Your task to perform on an android device: Check the news Image 0: 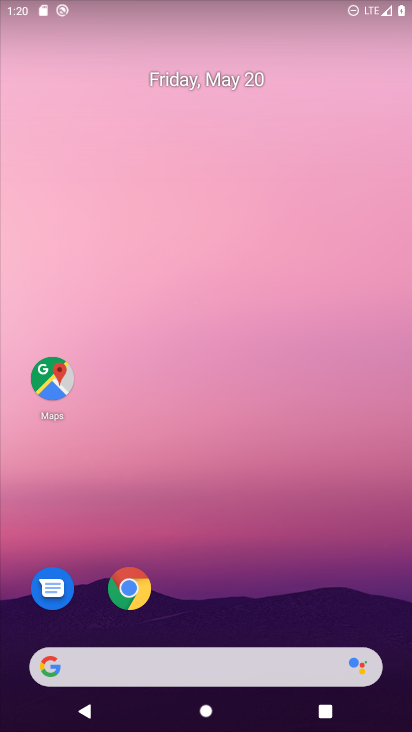
Step 0: drag from (2, 212) to (404, 323)
Your task to perform on an android device: Check the news Image 1: 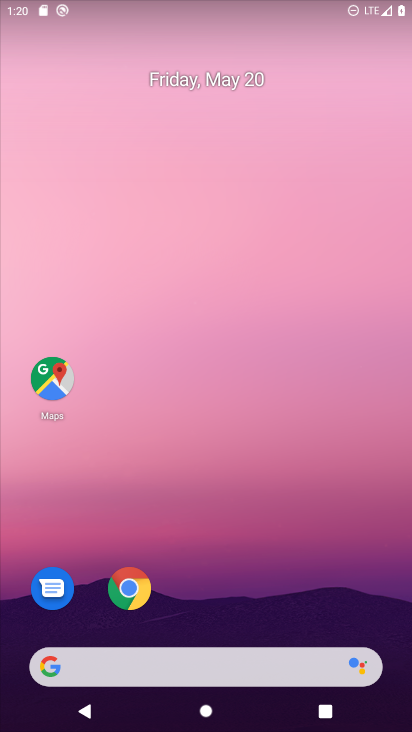
Step 1: task complete